Your task to perform on an android device: Show me the alarms in the clock app Image 0: 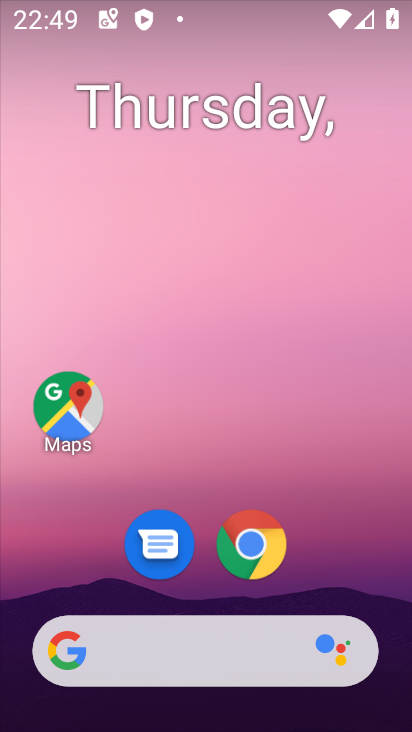
Step 0: drag from (334, 561) to (247, 1)
Your task to perform on an android device: Show me the alarms in the clock app Image 1: 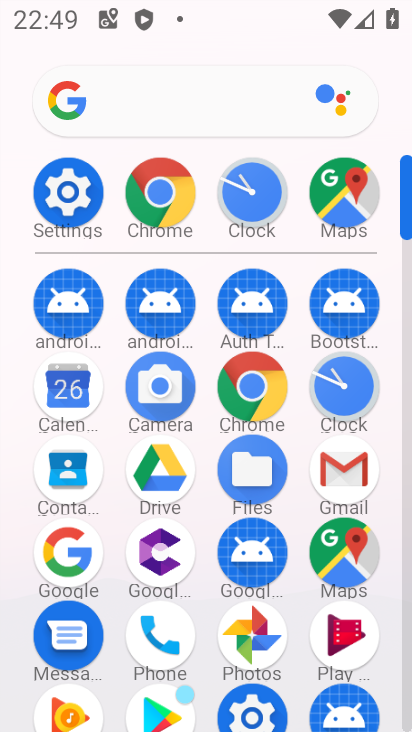
Step 1: drag from (12, 604) to (12, 233)
Your task to perform on an android device: Show me the alarms in the clock app Image 2: 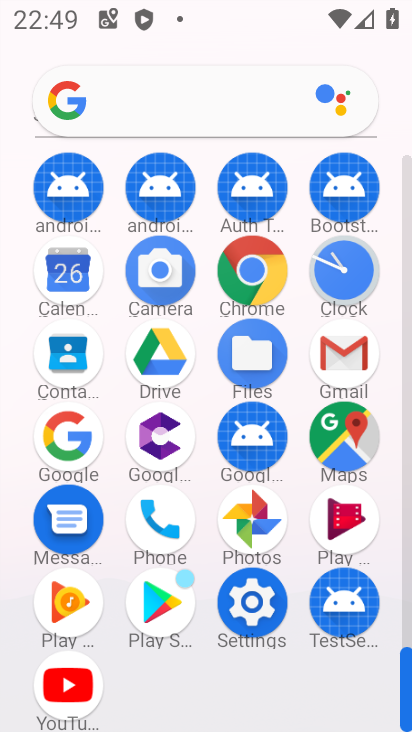
Step 2: click (344, 266)
Your task to perform on an android device: Show me the alarms in the clock app Image 3: 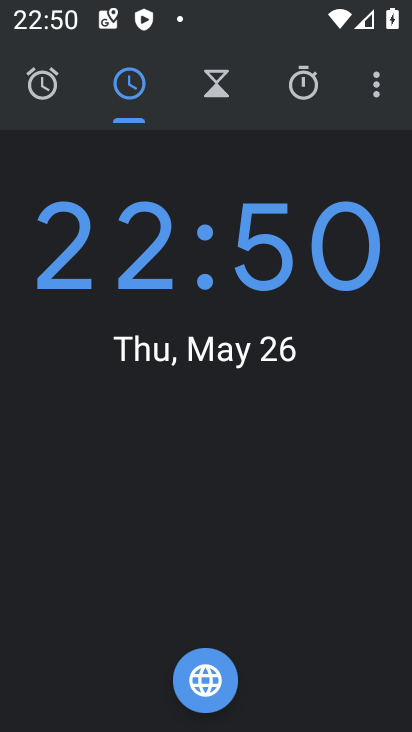
Step 3: click (51, 85)
Your task to perform on an android device: Show me the alarms in the clock app Image 4: 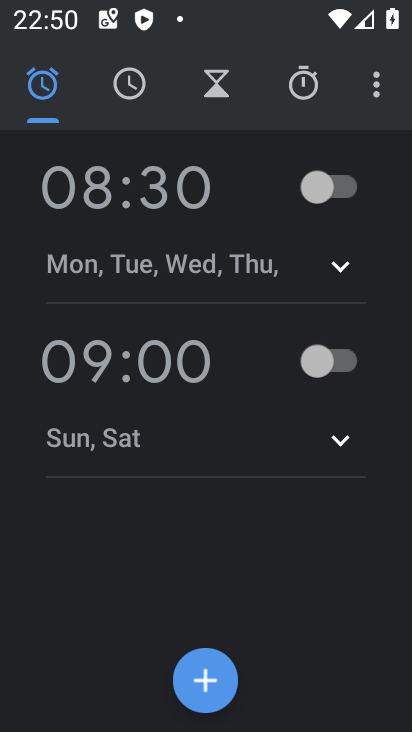
Step 4: task complete